Your task to perform on an android device: turn on the 12-hour format for clock Image 0: 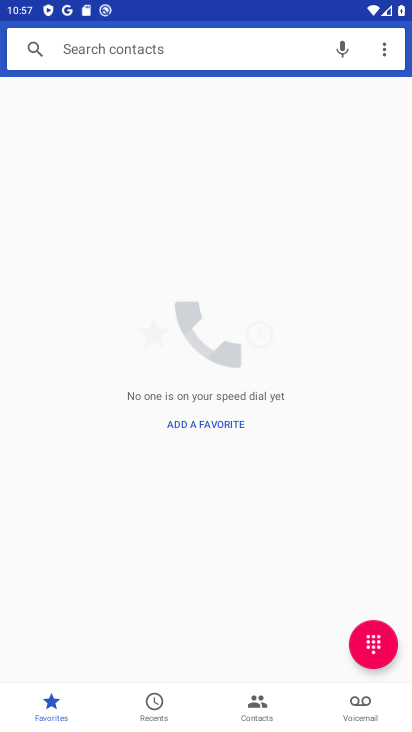
Step 0: press home button
Your task to perform on an android device: turn on the 12-hour format for clock Image 1: 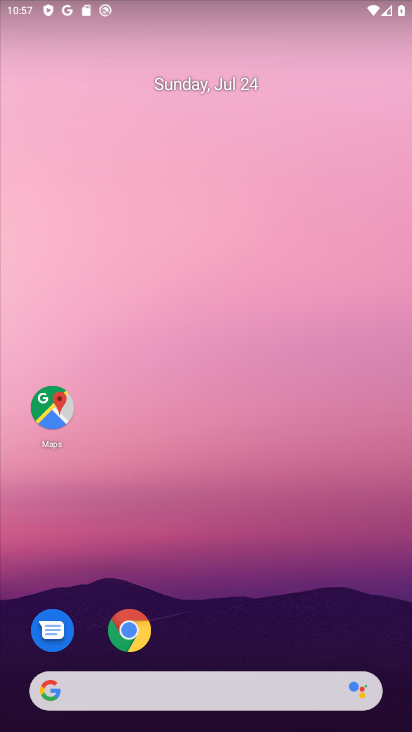
Step 1: drag from (223, 614) to (263, 129)
Your task to perform on an android device: turn on the 12-hour format for clock Image 2: 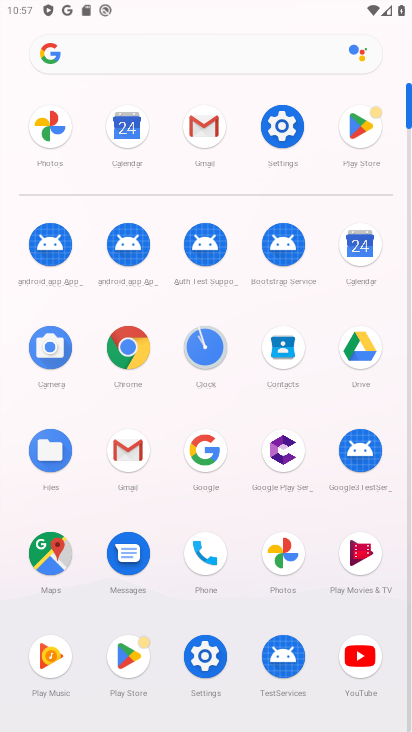
Step 2: click (215, 348)
Your task to perform on an android device: turn on the 12-hour format for clock Image 3: 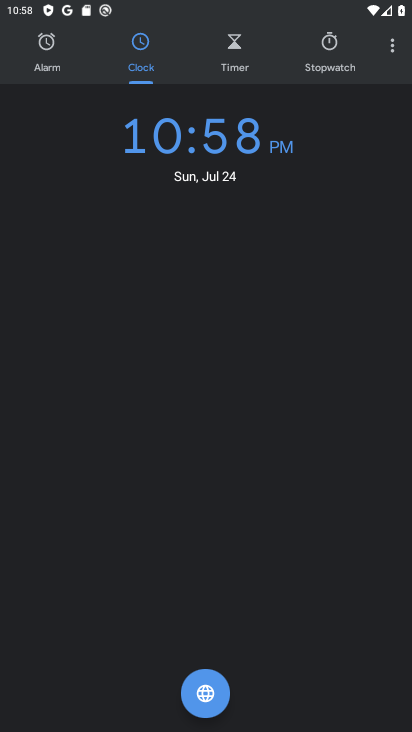
Step 3: click (401, 28)
Your task to perform on an android device: turn on the 12-hour format for clock Image 4: 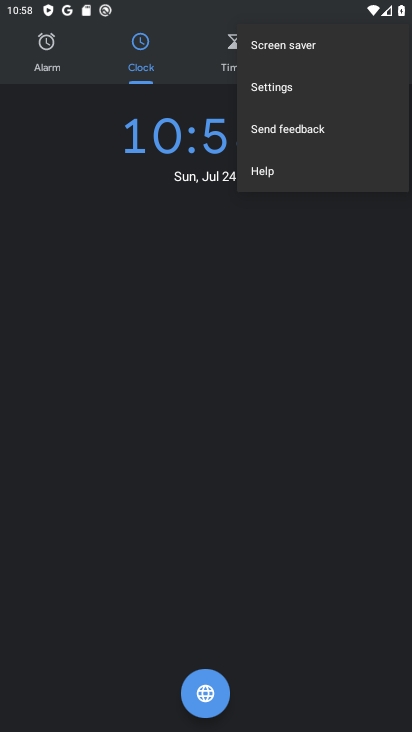
Step 4: click (405, 43)
Your task to perform on an android device: turn on the 12-hour format for clock Image 5: 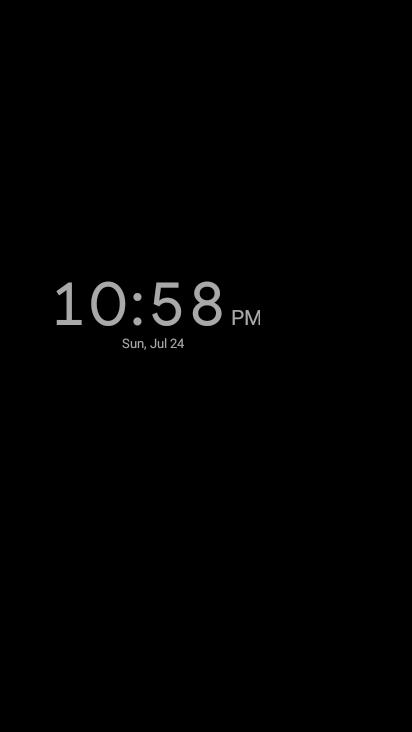
Step 5: press back button
Your task to perform on an android device: turn on the 12-hour format for clock Image 6: 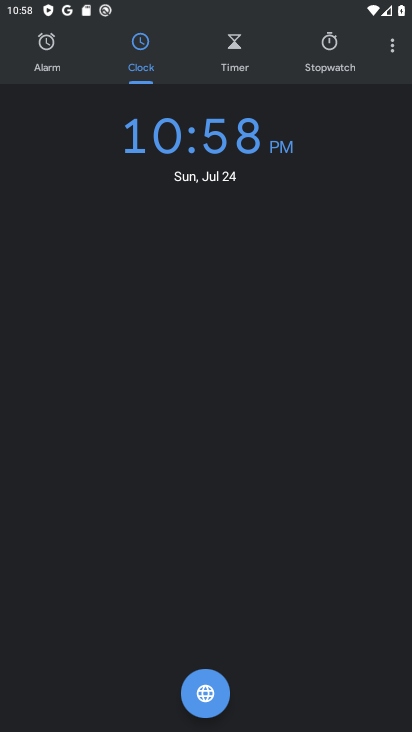
Step 6: click (393, 44)
Your task to perform on an android device: turn on the 12-hour format for clock Image 7: 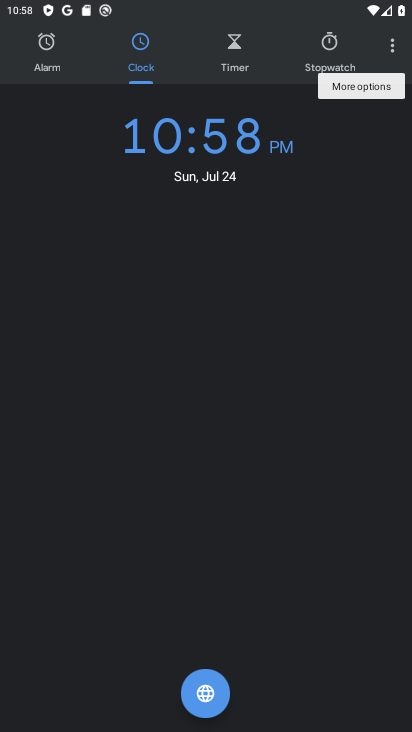
Step 7: click (386, 48)
Your task to perform on an android device: turn on the 12-hour format for clock Image 8: 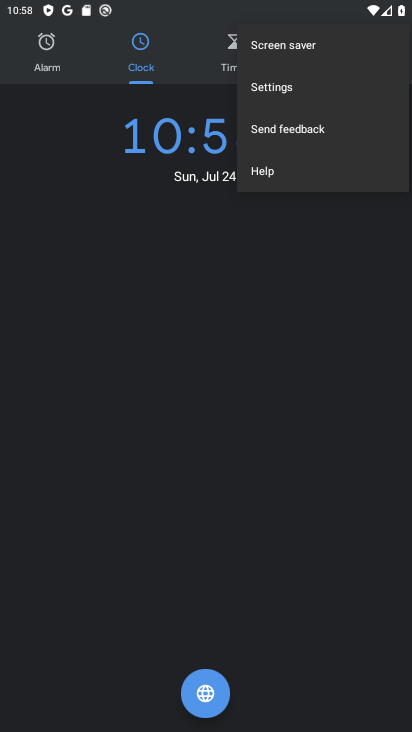
Step 8: click (263, 85)
Your task to perform on an android device: turn on the 12-hour format for clock Image 9: 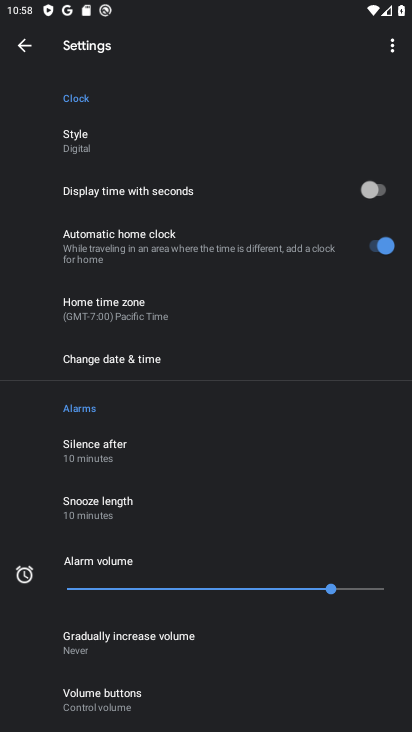
Step 9: click (97, 364)
Your task to perform on an android device: turn on the 12-hour format for clock Image 10: 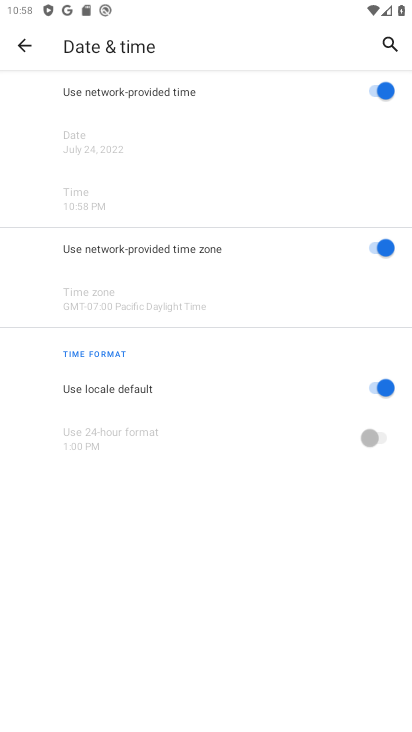
Step 10: task complete